Your task to perform on an android device: Go to Google maps Image 0: 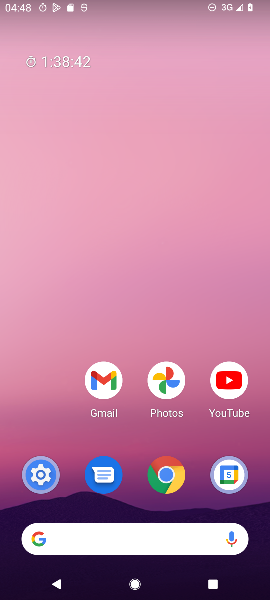
Step 0: drag from (66, 442) to (72, 236)
Your task to perform on an android device: Go to Google maps Image 1: 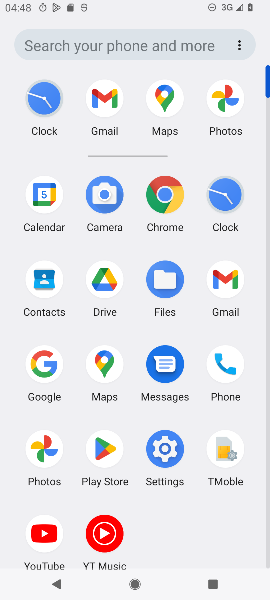
Step 1: click (109, 362)
Your task to perform on an android device: Go to Google maps Image 2: 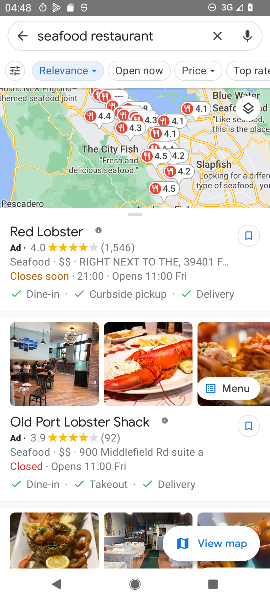
Step 2: task complete